Your task to perform on an android device: Show me popular games on the Play Store Image 0: 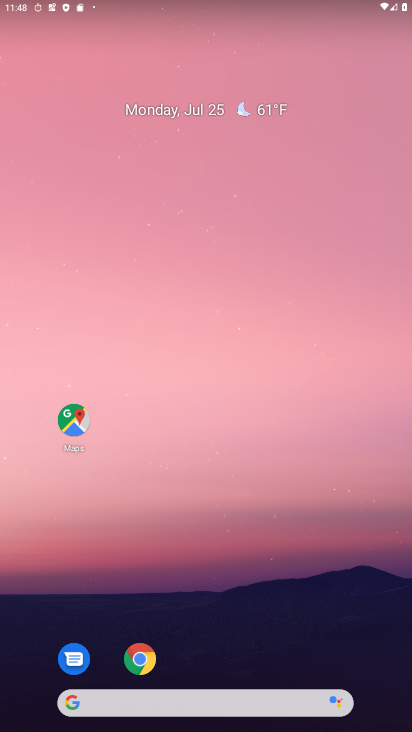
Step 0: drag from (27, 686) to (210, 169)
Your task to perform on an android device: Show me popular games on the Play Store Image 1: 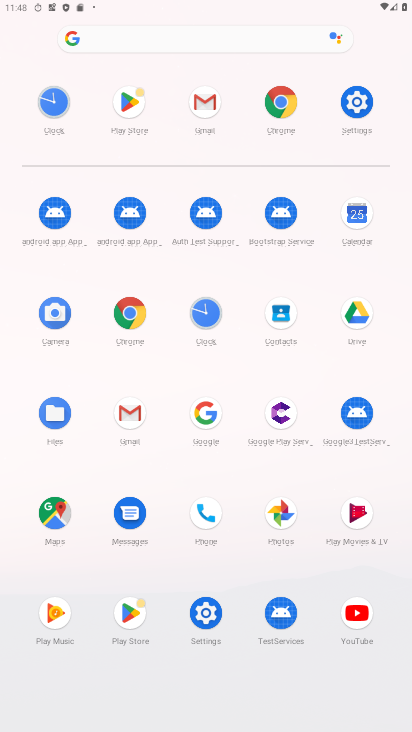
Step 1: click (125, 621)
Your task to perform on an android device: Show me popular games on the Play Store Image 2: 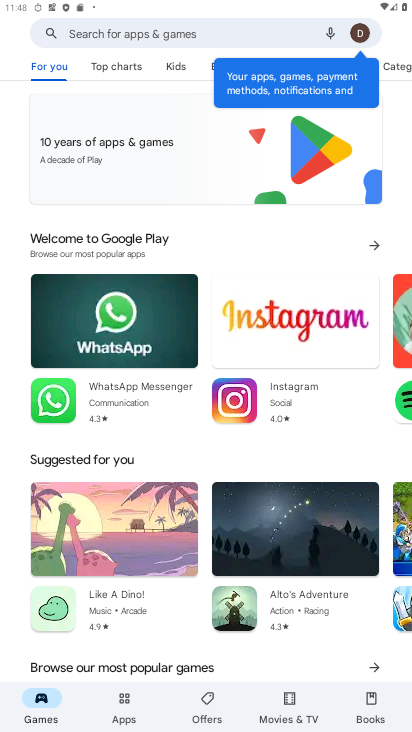
Step 2: task complete